Your task to perform on an android device: Go to ESPN.com Image 0: 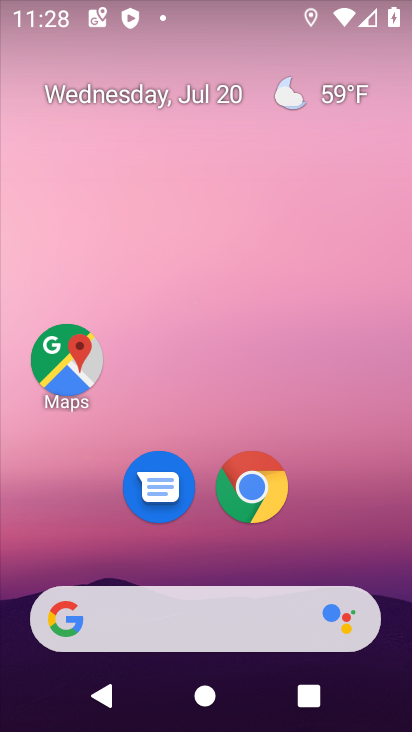
Step 0: drag from (367, 517) to (387, 113)
Your task to perform on an android device: Go to ESPN.com Image 1: 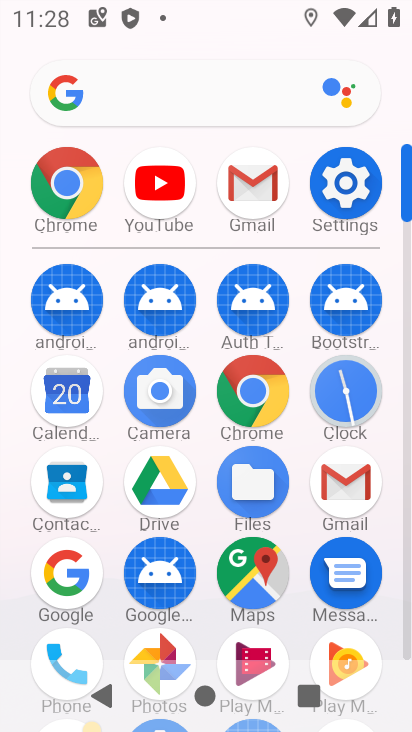
Step 1: click (259, 396)
Your task to perform on an android device: Go to ESPN.com Image 2: 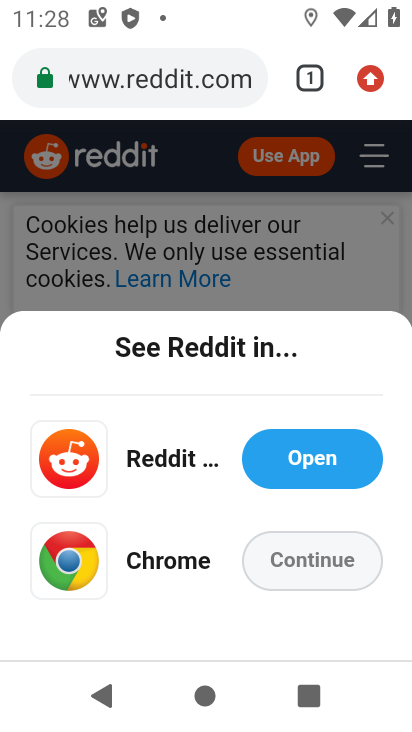
Step 2: click (206, 90)
Your task to perform on an android device: Go to ESPN.com Image 3: 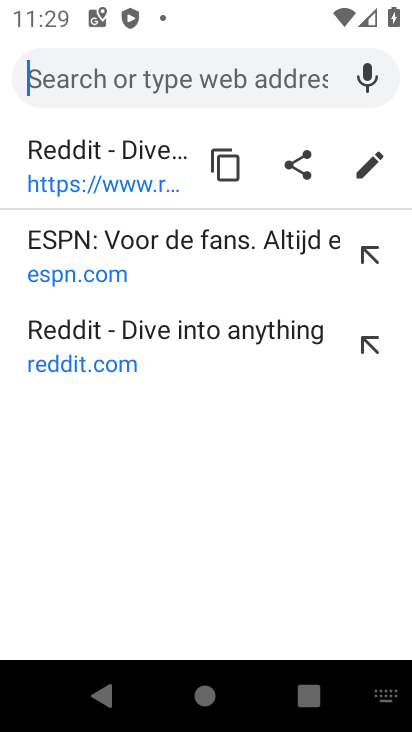
Step 3: type "espn.com"
Your task to perform on an android device: Go to ESPN.com Image 4: 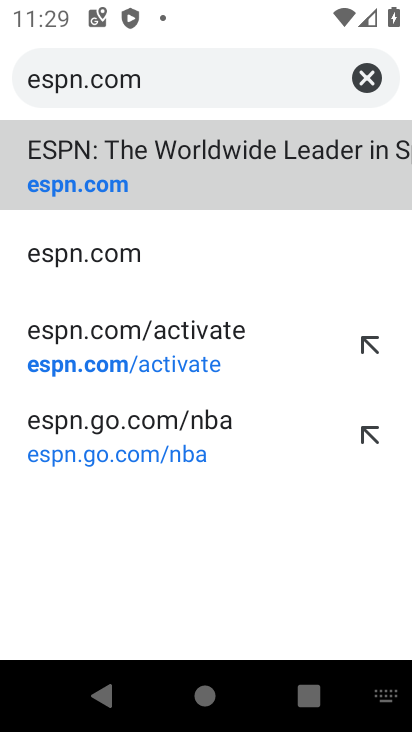
Step 4: click (192, 186)
Your task to perform on an android device: Go to ESPN.com Image 5: 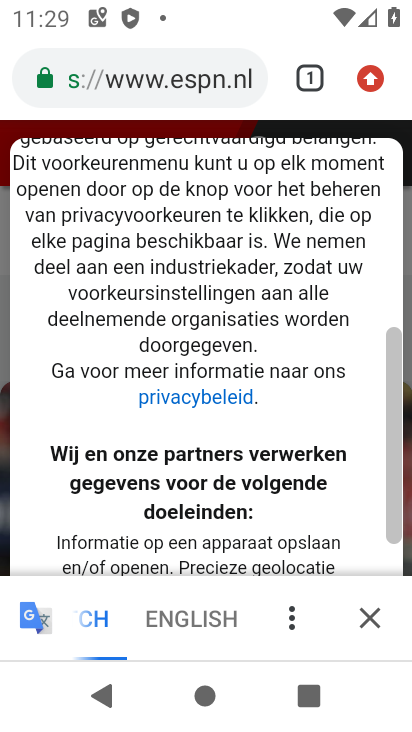
Step 5: task complete